Your task to perform on an android device: Go to privacy settings Image 0: 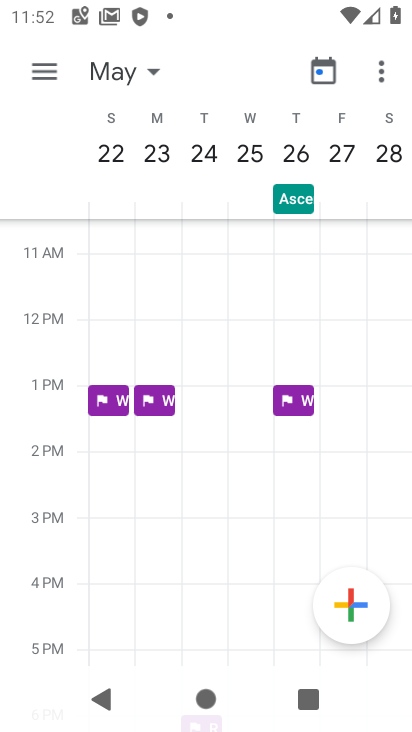
Step 0: press home button
Your task to perform on an android device: Go to privacy settings Image 1: 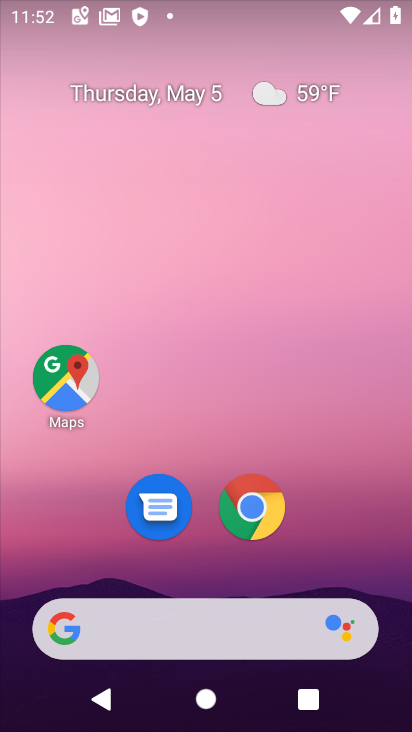
Step 1: drag from (318, 480) to (249, 10)
Your task to perform on an android device: Go to privacy settings Image 2: 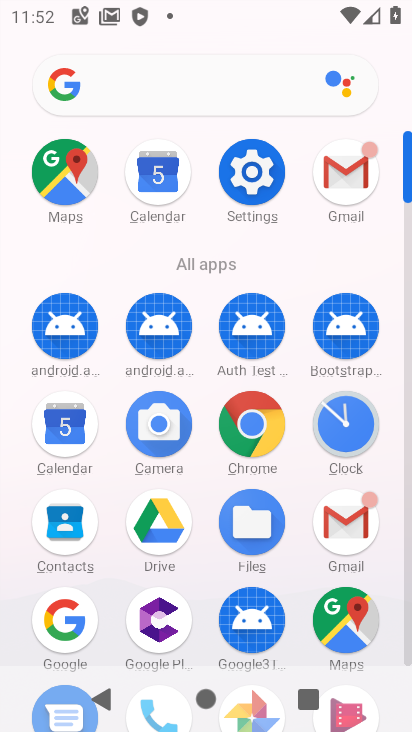
Step 2: click (249, 178)
Your task to perform on an android device: Go to privacy settings Image 3: 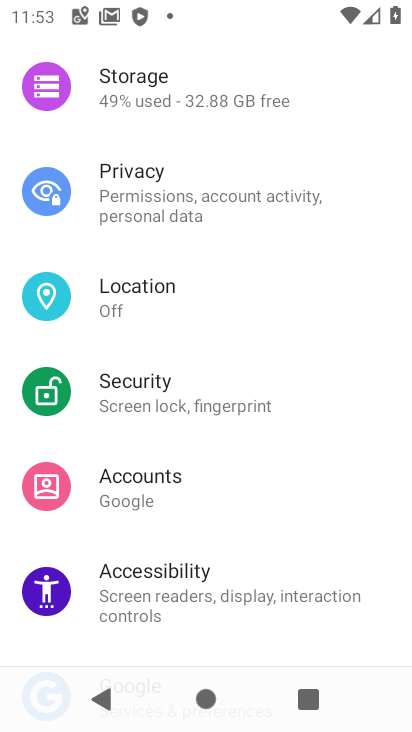
Step 3: click (136, 179)
Your task to perform on an android device: Go to privacy settings Image 4: 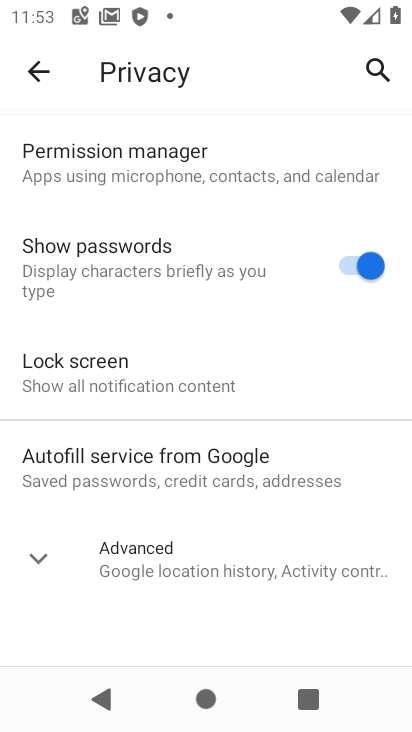
Step 4: task complete